Your task to perform on an android device: What's on my calendar tomorrow? Image 0: 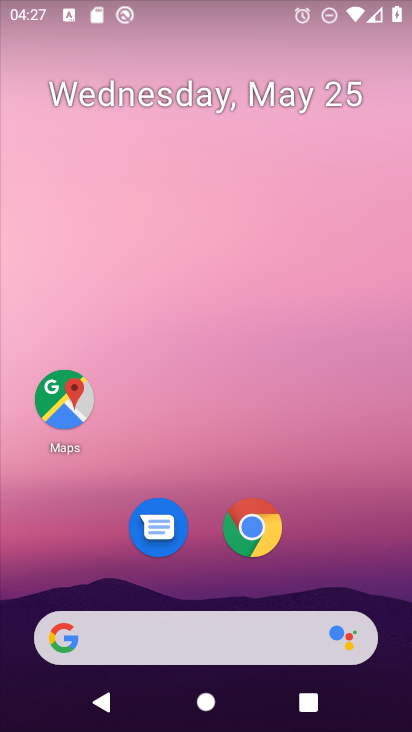
Step 0: drag from (327, 495) to (281, 83)
Your task to perform on an android device: What's on my calendar tomorrow? Image 1: 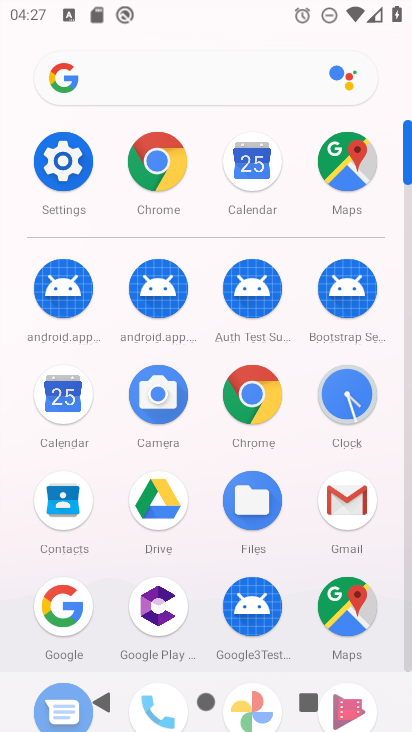
Step 1: click (65, 404)
Your task to perform on an android device: What's on my calendar tomorrow? Image 2: 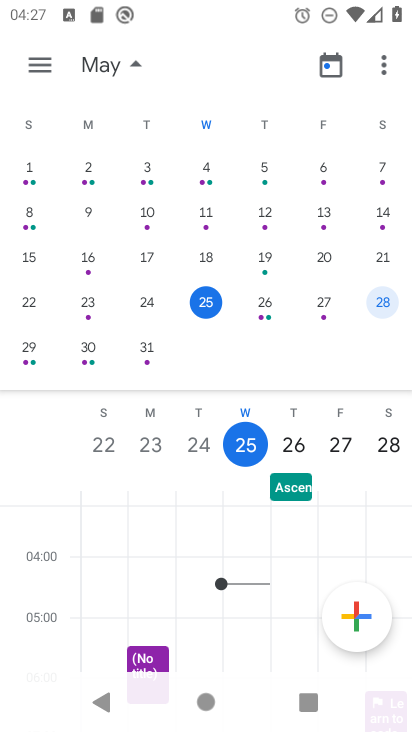
Step 2: click (267, 305)
Your task to perform on an android device: What's on my calendar tomorrow? Image 3: 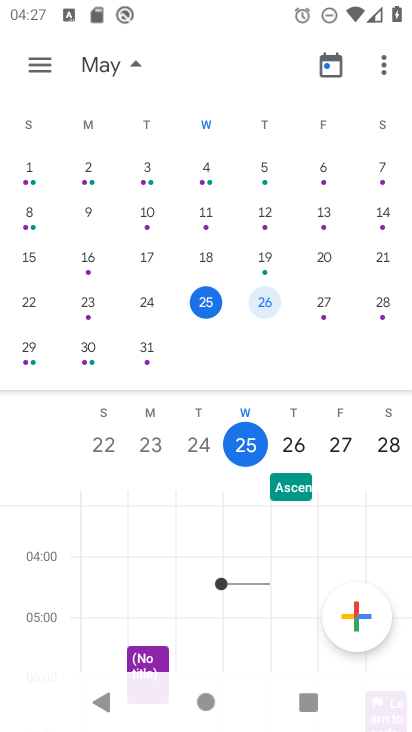
Step 3: click (266, 305)
Your task to perform on an android device: What's on my calendar tomorrow? Image 4: 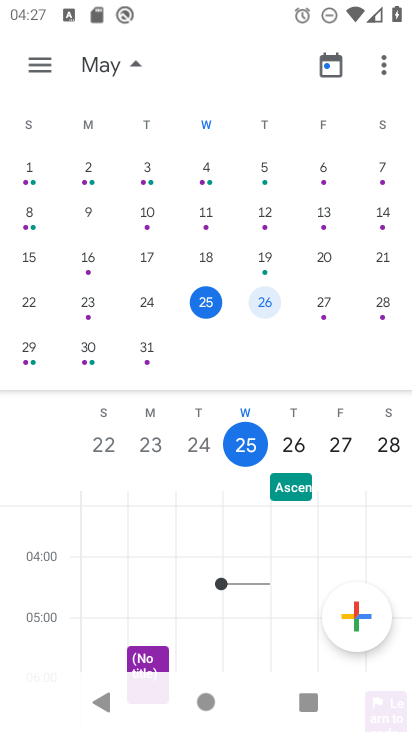
Step 4: click (49, 64)
Your task to perform on an android device: What's on my calendar tomorrow? Image 5: 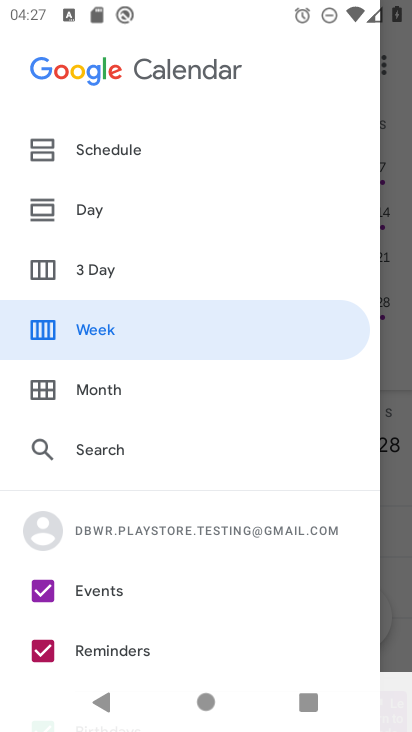
Step 5: click (148, 592)
Your task to perform on an android device: What's on my calendar tomorrow? Image 6: 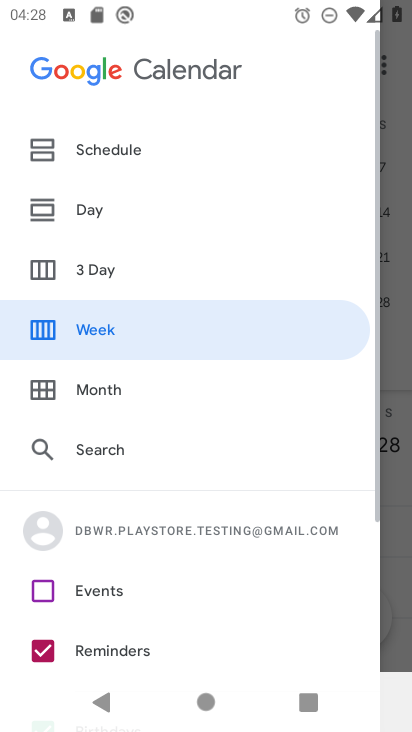
Step 6: click (148, 592)
Your task to perform on an android device: What's on my calendar tomorrow? Image 7: 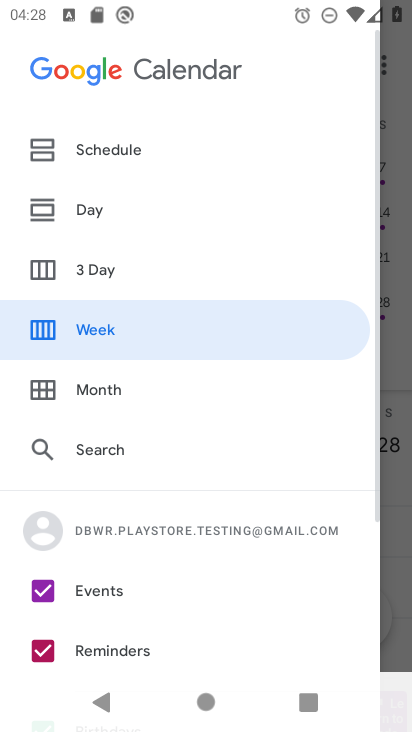
Step 7: click (395, 442)
Your task to perform on an android device: What's on my calendar tomorrow? Image 8: 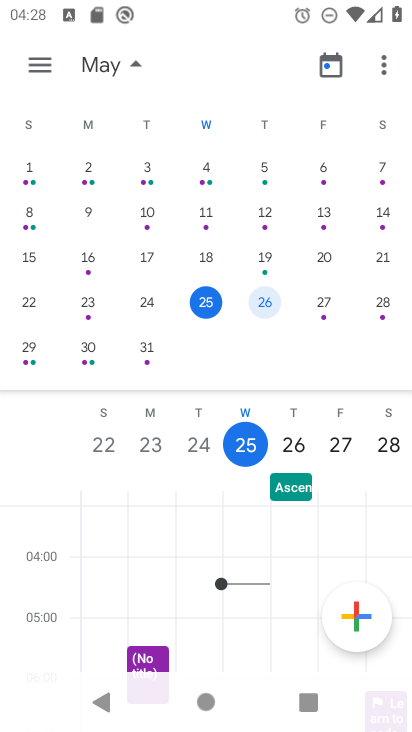
Step 8: click (261, 300)
Your task to perform on an android device: What's on my calendar tomorrow? Image 9: 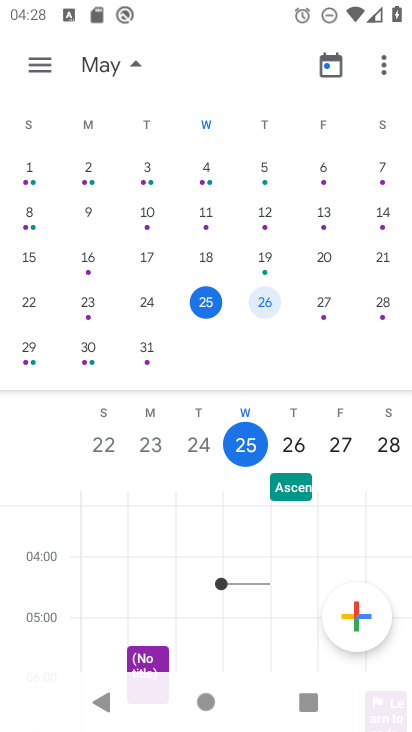
Step 9: click (272, 310)
Your task to perform on an android device: What's on my calendar tomorrow? Image 10: 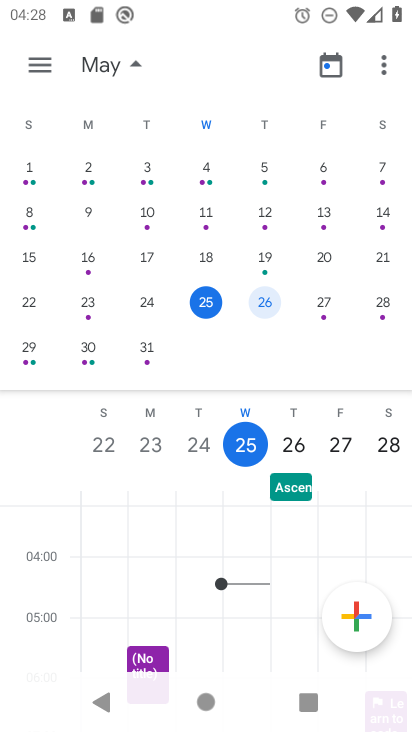
Step 10: click (293, 437)
Your task to perform on an android device: What's on my calendar tomorrow? Image 11: 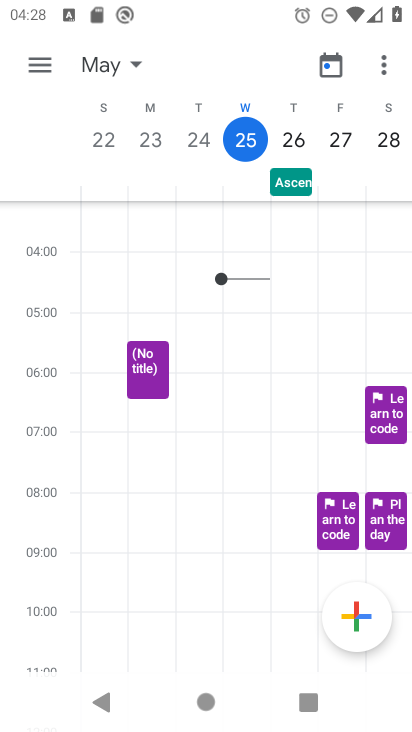
Step 11: click (303, 153)
Your task to perform on an android device: What's on my calendar tomorrow? Image 12: 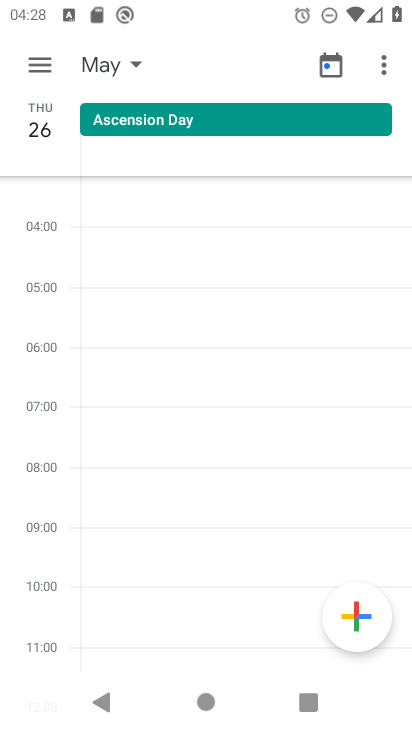
Step 12: task complete